Your task to perform on an android device: turn on javascript in the chrome app Image 0: 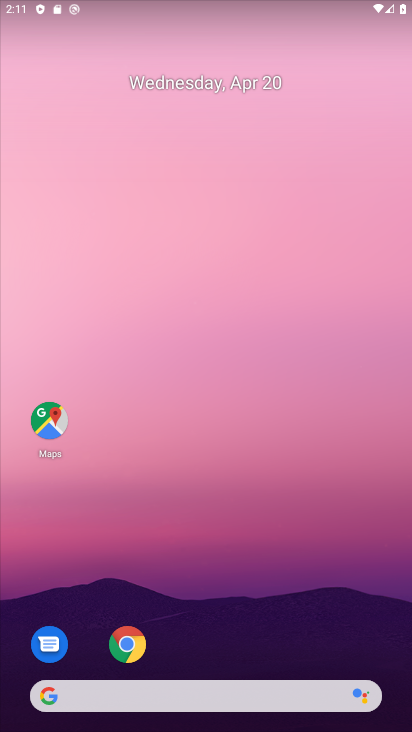
Step 0: click (127, 647)
Your task to perform on an android device: turn on javascript in the chrome app Image 1: 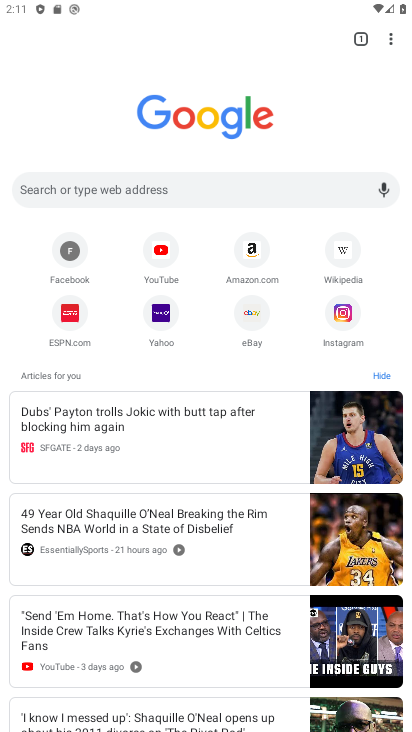
Step 1: click (390, 40)
Your task to perform on an android device: turn on javascript in the chrome app Image 2: 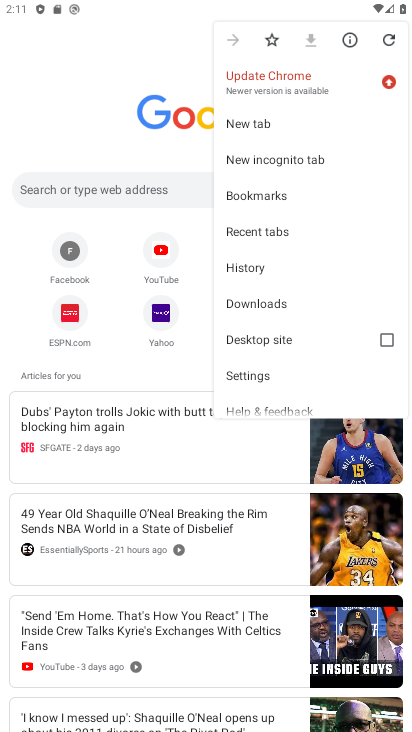
Step 2: click (243, 373)
Your task to perform on an android device: turn on javascript in the chrome app Image 3: 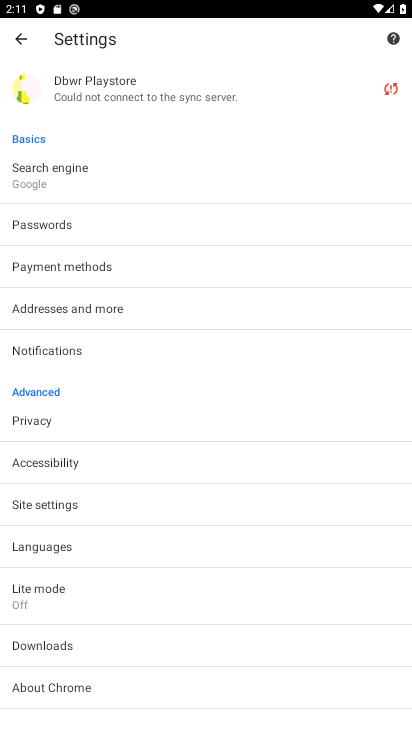
Step 3: click (40, 502)
Your task to perform on an android device: turn on javascript in the chrome app Image 4: 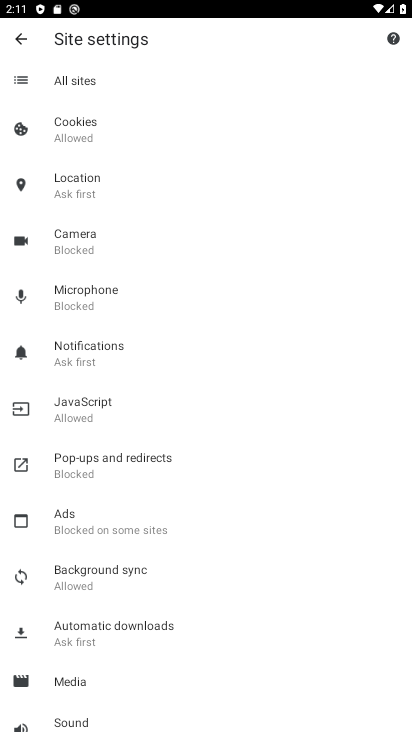
Step 4: click (77, 409)
Your task to perform on an android device: turn on javascript in the chrome app Image 5: 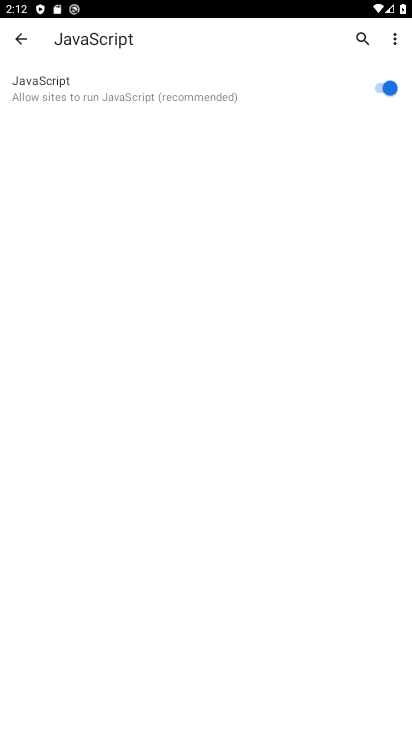
Step 5: task complete